Your task to perform on an android device: Open the calendar and show me this week's events? Image 0: 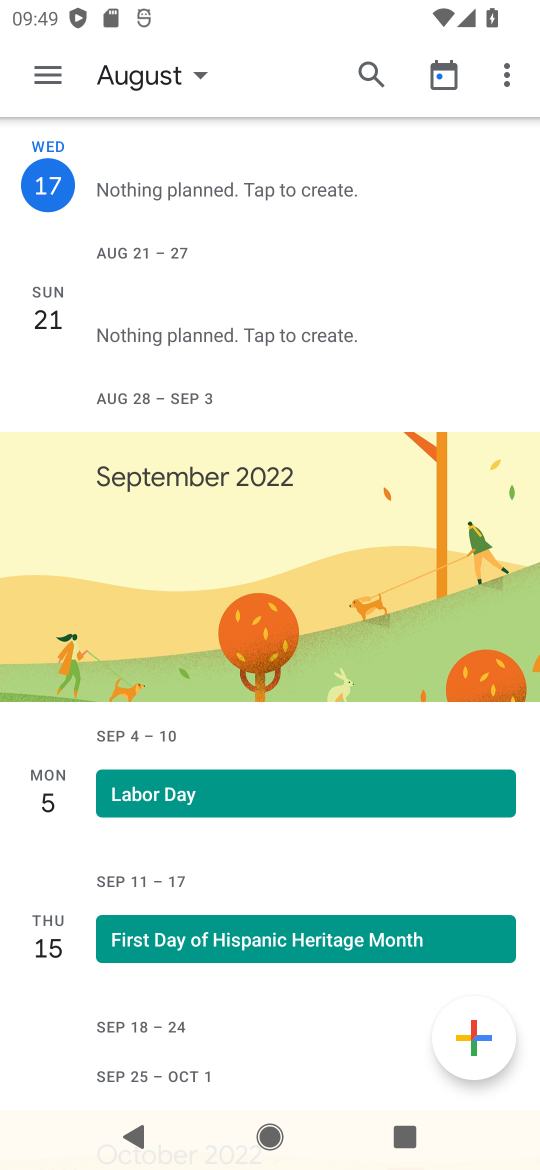
Step 0: task complete